Your task to perform on an android device: Open calendar and show me the second week of next month Image 0: 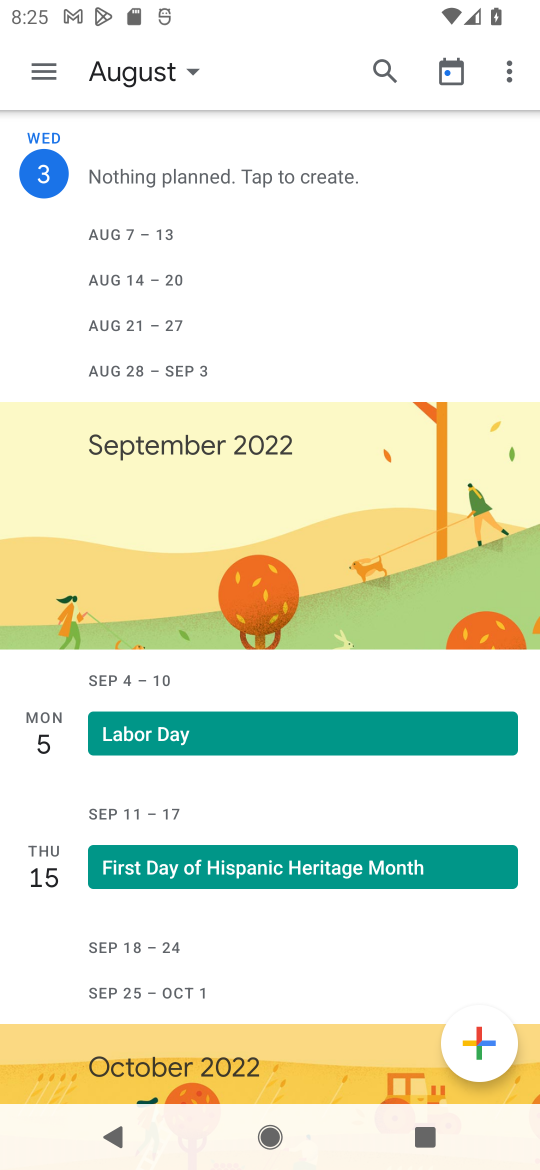
Step 0: press home button
Your task to perform on an android device: Open calendar and show me the second week of next month Image 1: 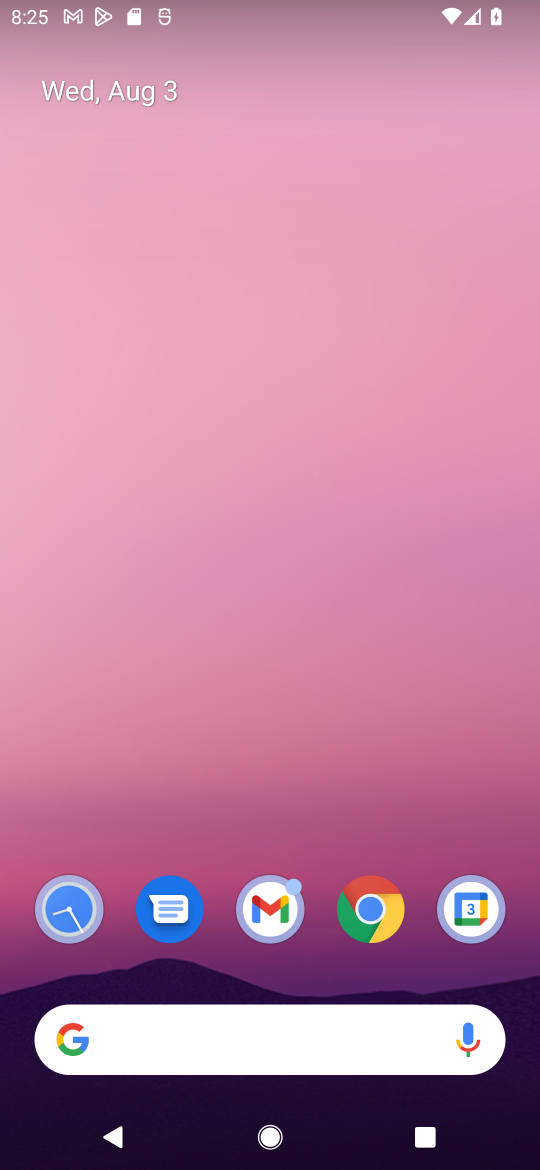
Step 1: drag from (407, 769) to (360, 226)
Your task to perform on an android device: Open calendar and show me the second week of next month Image 2: 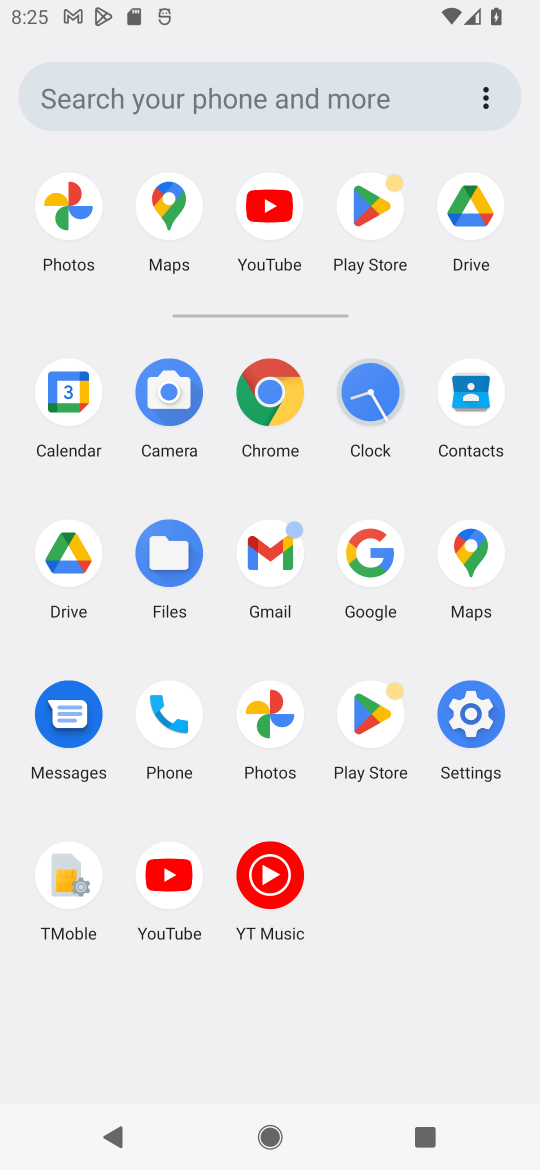
Step 2: click (69, 390)
Your task to perform on an android device: Open calendar and show me the second week of next month Image 3: 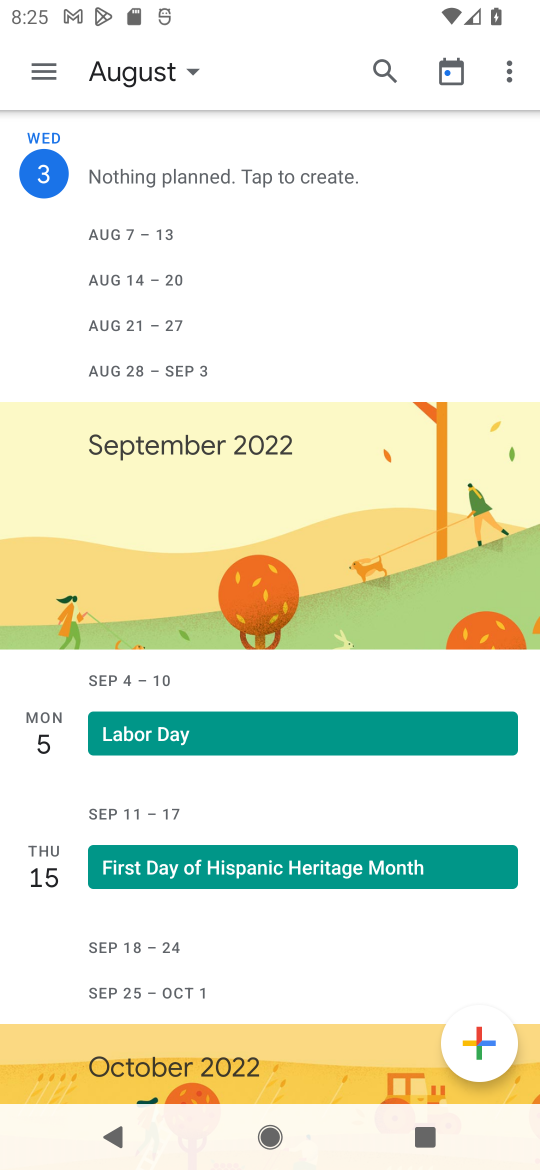
Step 3: click (192, 60)
Your task to perform on an android device: Open calendar and show me the second week of next month Image 4: 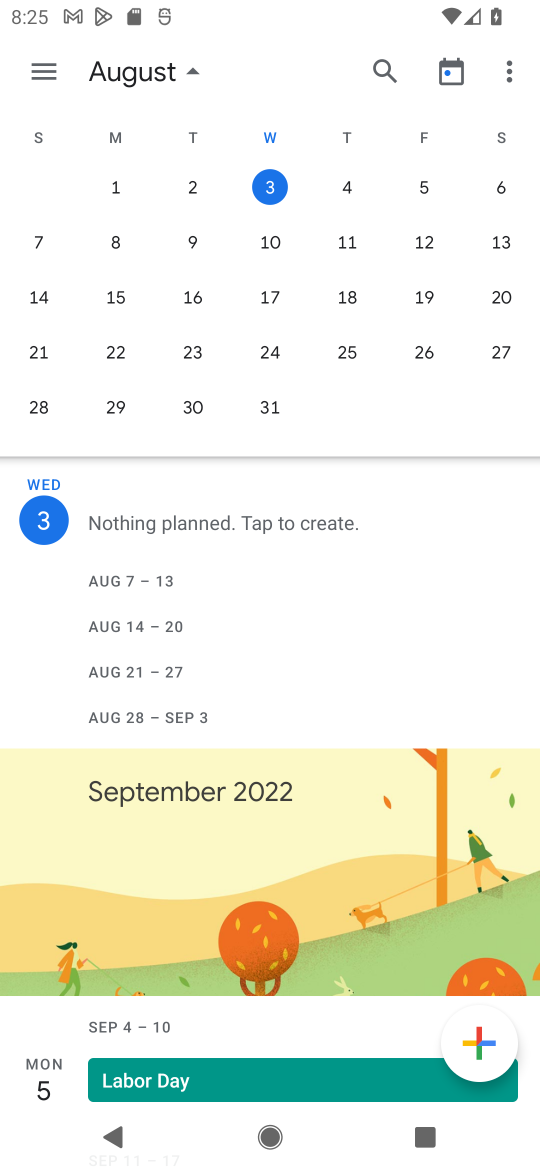
Step 4: drag from (513, 217) to (140, 214)
Your task to perform on an android device: Open calendar and show me the second week of next month Image 5: 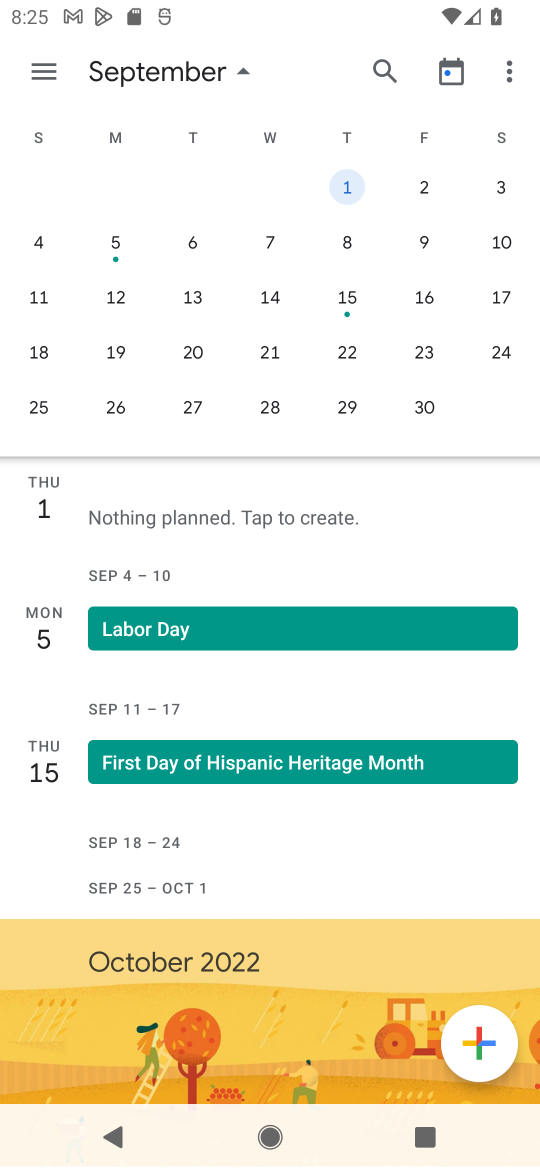
Step 5: click (116, 242)
Your task to perform on an android device: Open calendar and show me the second week of next month Image 6: 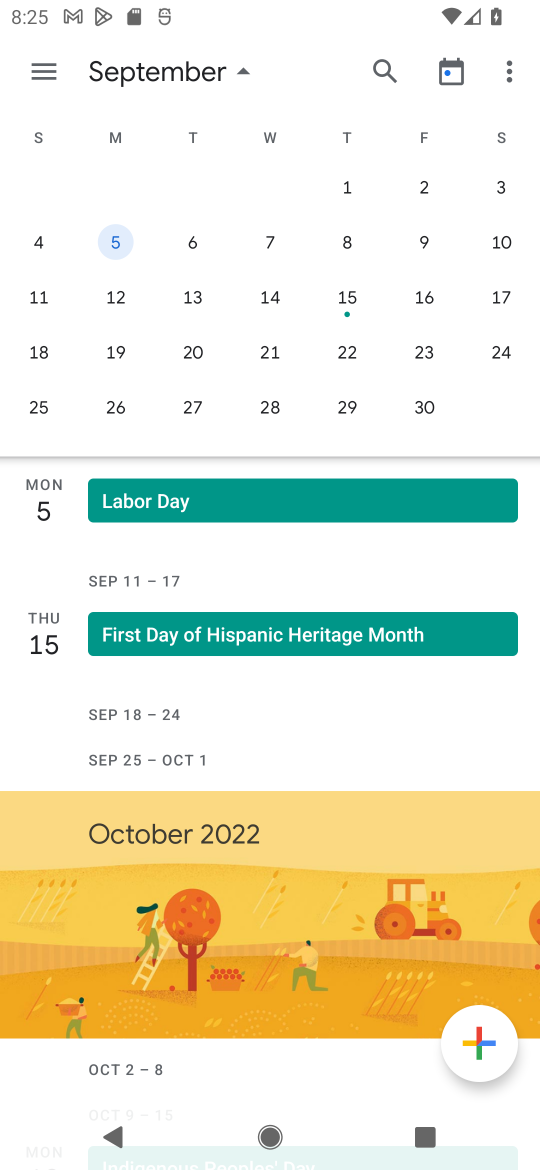
Step 6: task complete